Your task to perform on an android device: Open eBay Image 0: 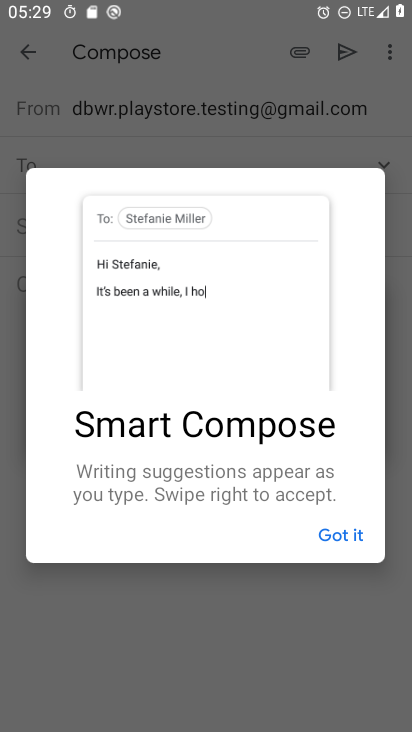
Step 0: press home button
Your task to perform on an android device: Open eBay Image 1: 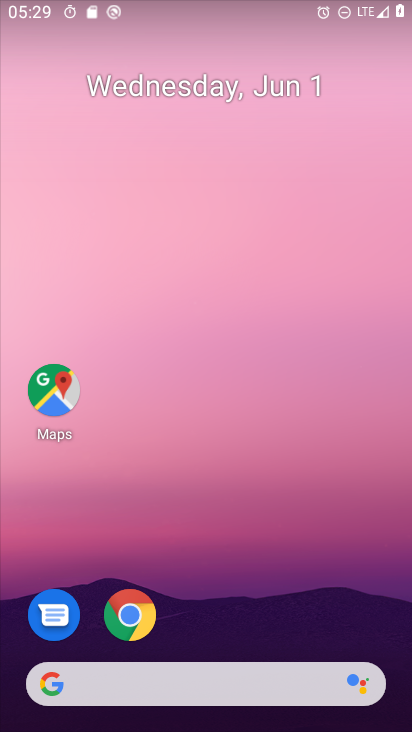
Step 1: drag from (176, 683) to (236, 3)
Your task to perform on an android device: Open eBay Image 2: 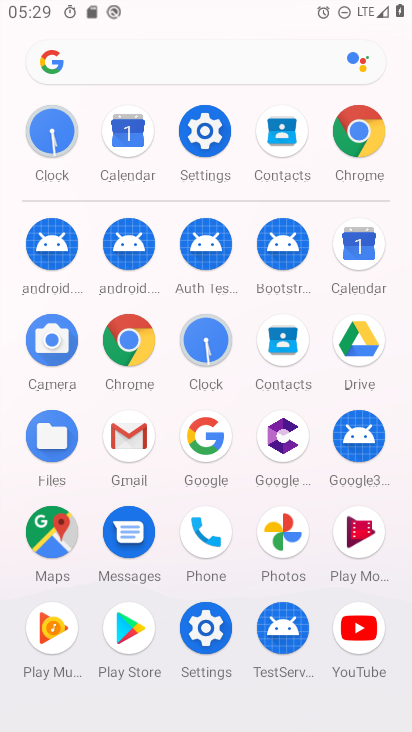
Step 2: click (133, 347)
Your task to perform on an android device: Open eBay Image 3: 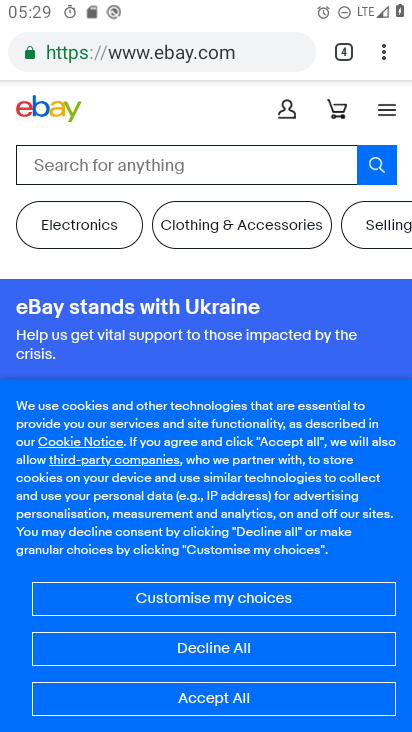
Step 3: task complete